Your task to perform on an android device: delete browsing data in the chrome app Image 0: 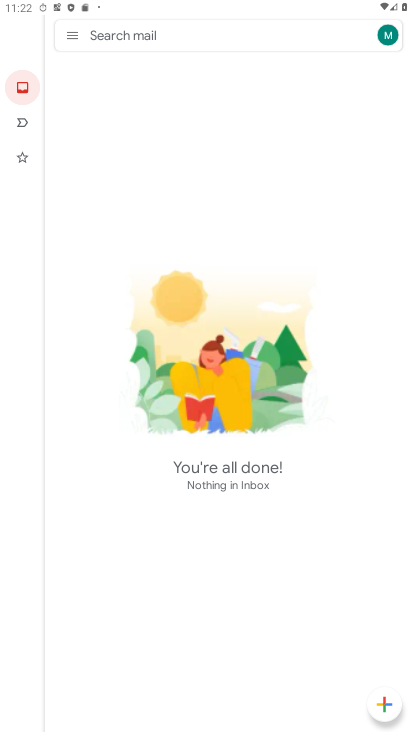
Step 0: press home button
Your task to perform on an android device: delete browsing data in the chrome app Image 1: 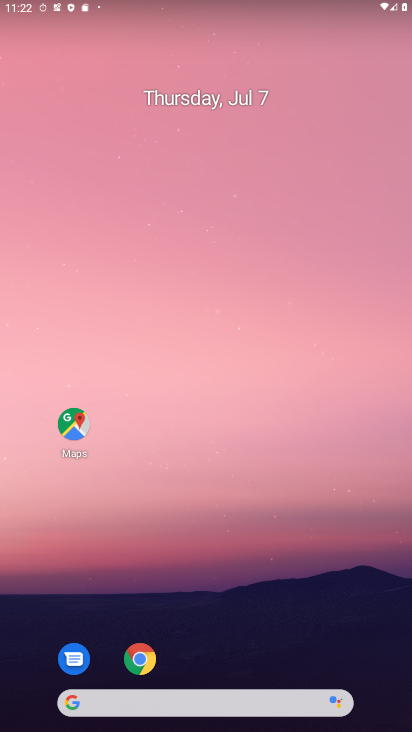
Step 1: click (134, 658)
Your task to perform on an android device: delete browsing data in the chrome app Image 2: 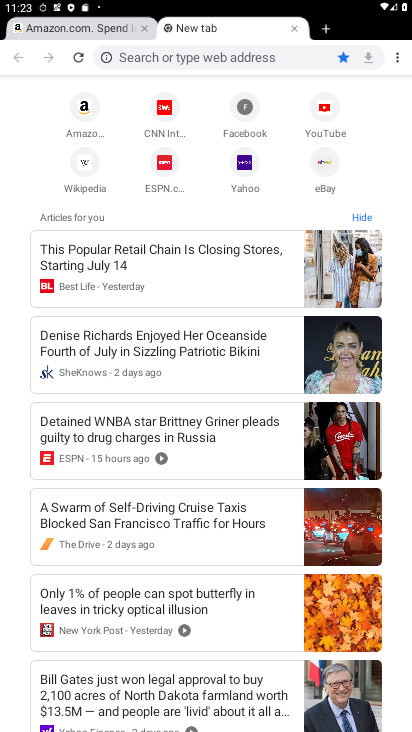
Step 2: click (399, 57)
Your task to perform on an android device: delete browsing data in the chrome app Image 3: 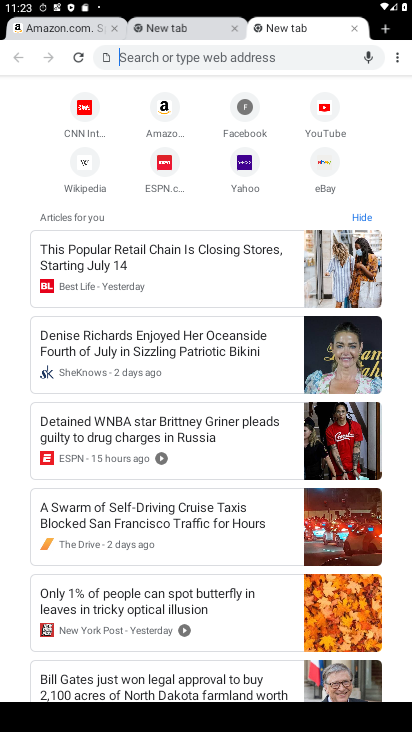
Step 3: click (399, 57)
Your task to perform on an android device: delete browsing data in the chrome app Image 4: 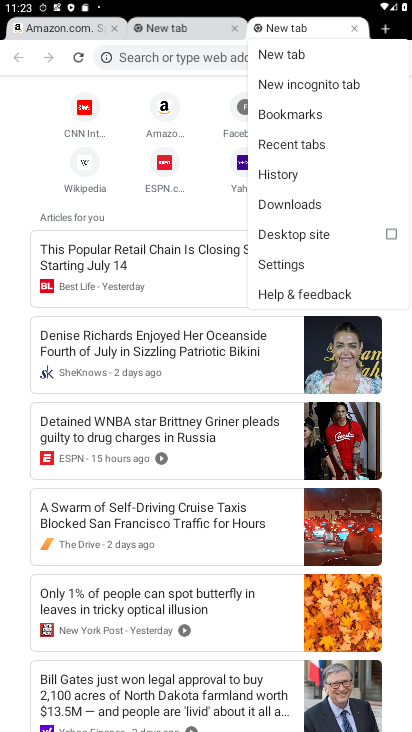
Step 4: click (306, 180)
Your task to perform on an android device: delete browsing data in the chrome app Image 5: 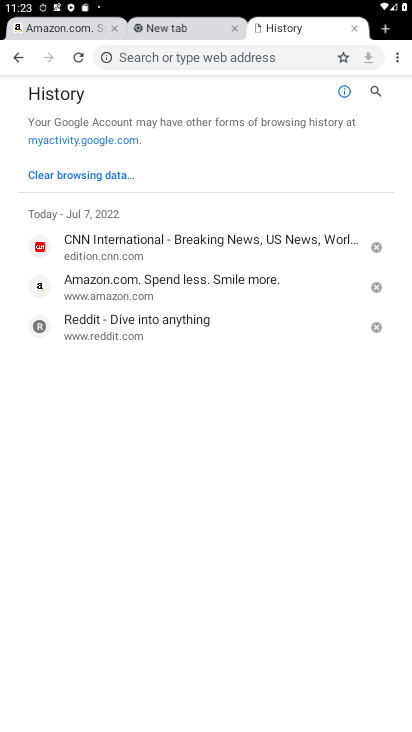
Step 5: click (97, 169)
Your task to perform on an android device: delete browsing data in the chrome app Image 6: 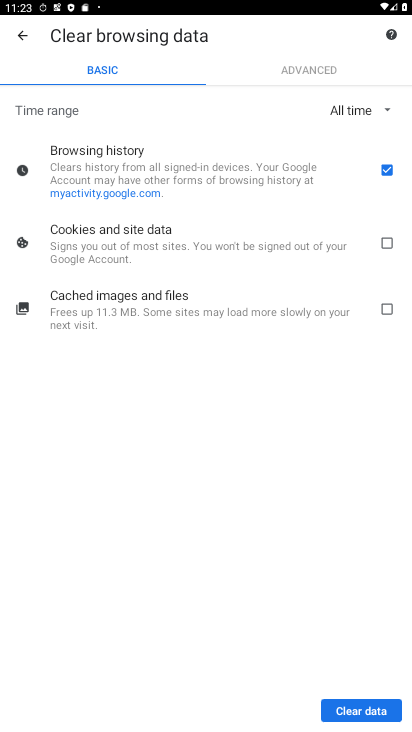
Step 6: click (386, 245)
Your task to perform on an android device: delete browsing data in the chrome app Image 7: 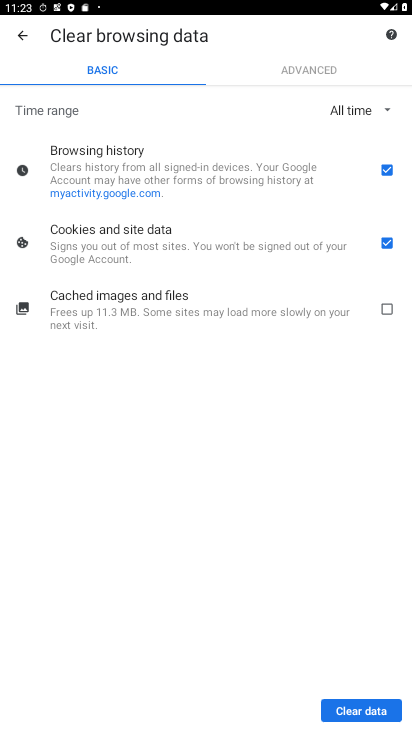
Step 7: click (385, 308)
Your task to perform on an android device: delete browsing data in the chrome app Image 8: 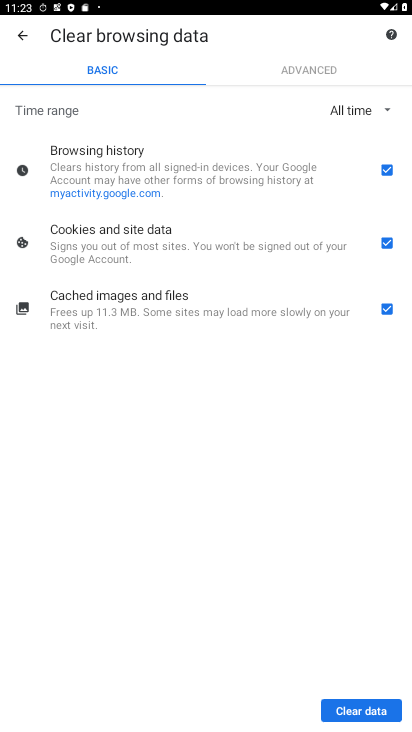
Step 8: click (369, 719)
Your task to perform on an android device: delete browsing data in the chrome app Image 9: 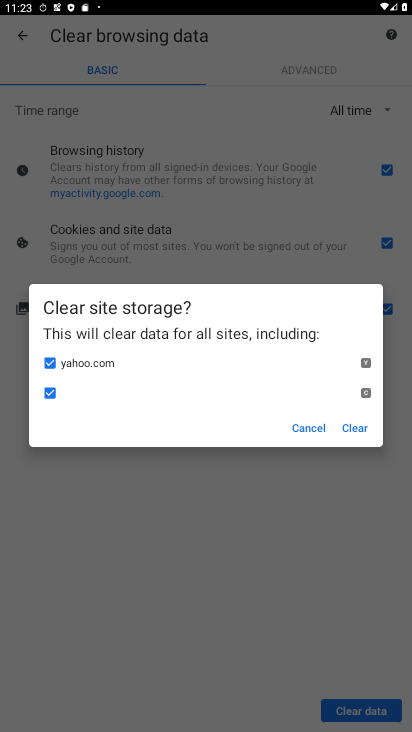
Step 9: click (357, 431)
Your task to perform on an android device: delete browsing data in the chrome app Image 10: 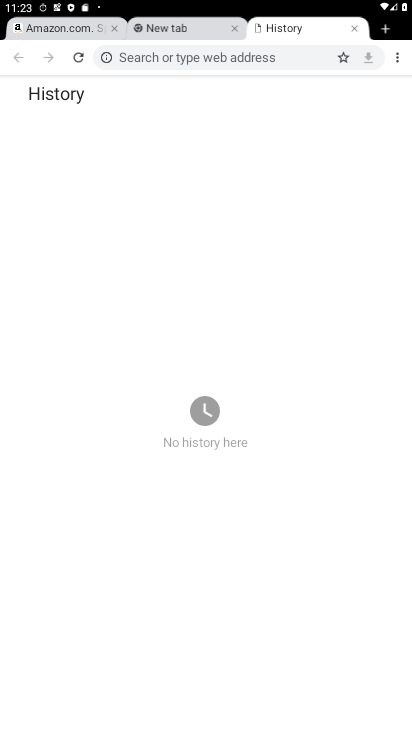
Step 10: task complete